Your task to perform on an android device: Show me recent news Image 0: 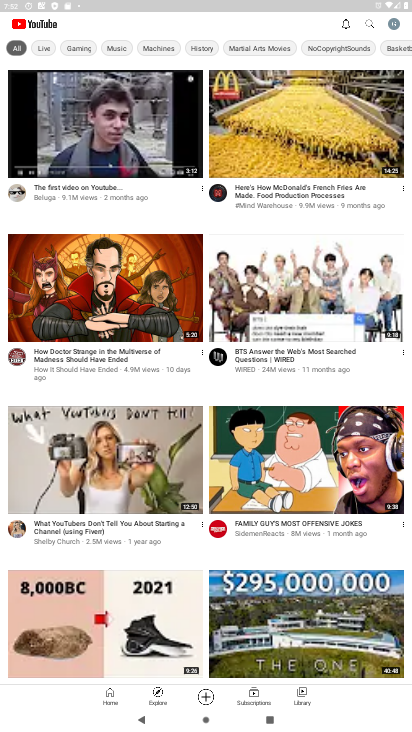
Step 0: press home button
Your task to perform on an android device: Show me recent news Image 1: 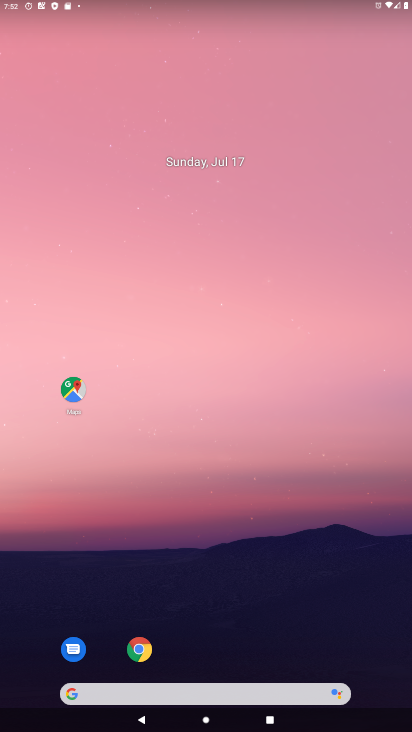
Step 1: click (187, 693)
Your task to perform on an android device: Show me recent news Image 2: 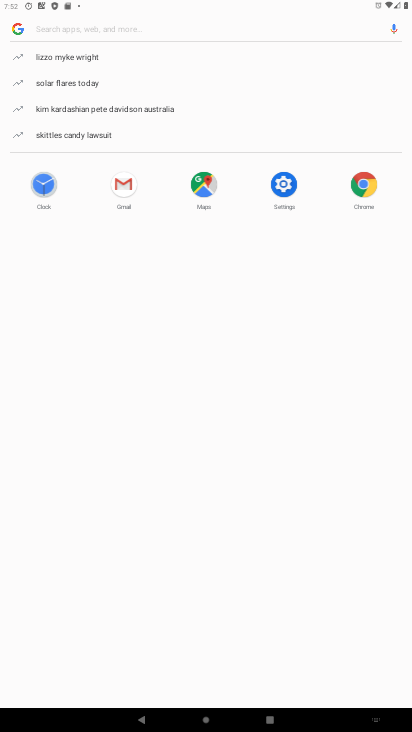
Step 2: type "recent news"
Your task to perform on an android device: Show me recent news Image 3: 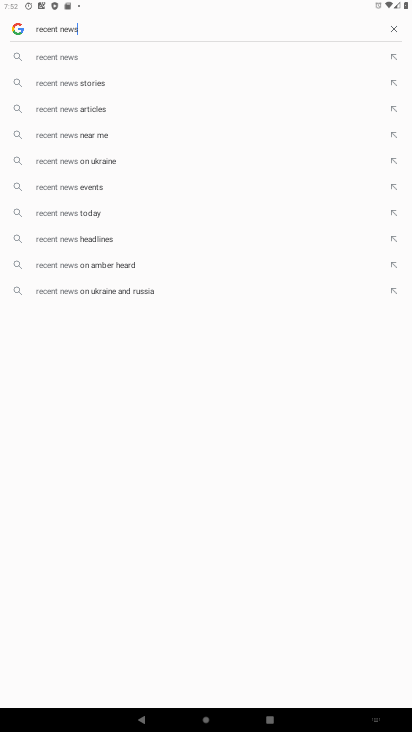
Step 3: click (65, 58)
Your task to perform on an android device: Show me recent news Image 4: 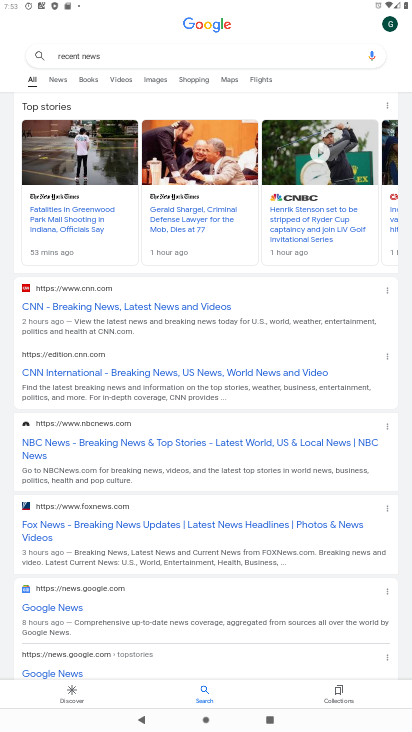
Step 4: task complete